Your task to perform on an android device: What's the weather? Image 0: 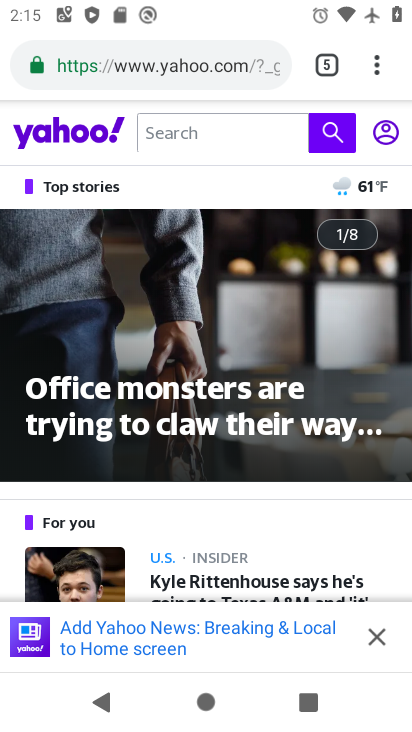
Step 0: press home button
Your task to perform on an android device: What's the weather? Image 1: 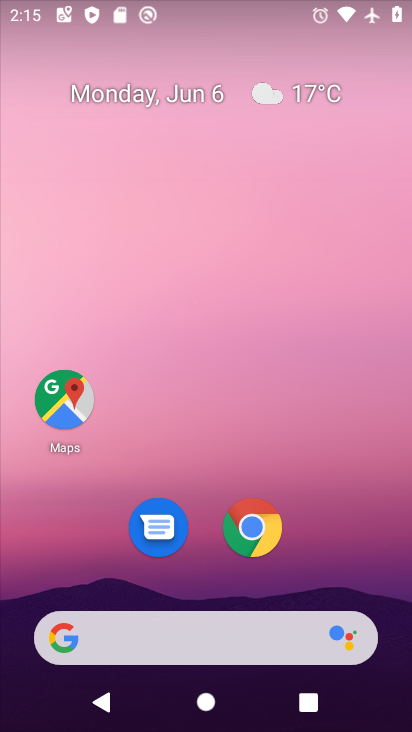
Step 1: click (308, 88)
Your task to perform on an android device: What's the weather? Image 2: 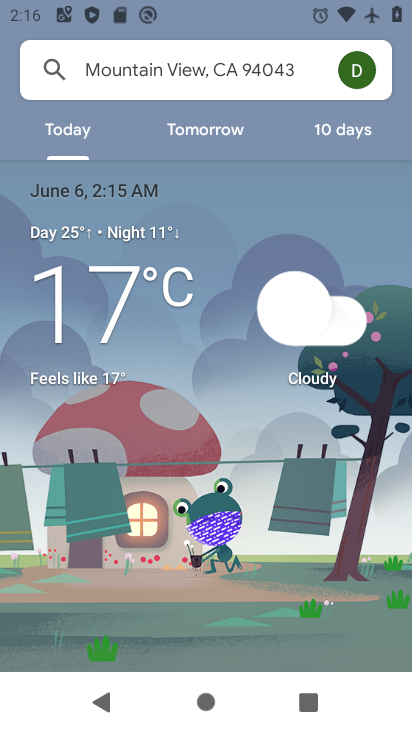
Step 2: task complete